Your task to perform on an android device: check android version Image 0: 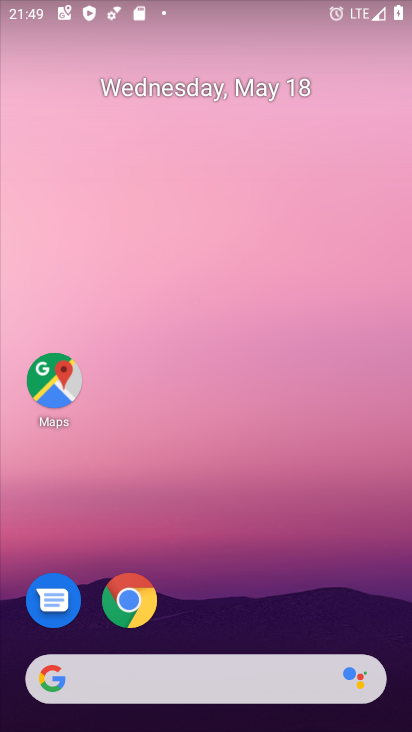
Step 0: drag from (186, 583) to (346, 23)
Your task to perform on an android device: check android version Image 1: 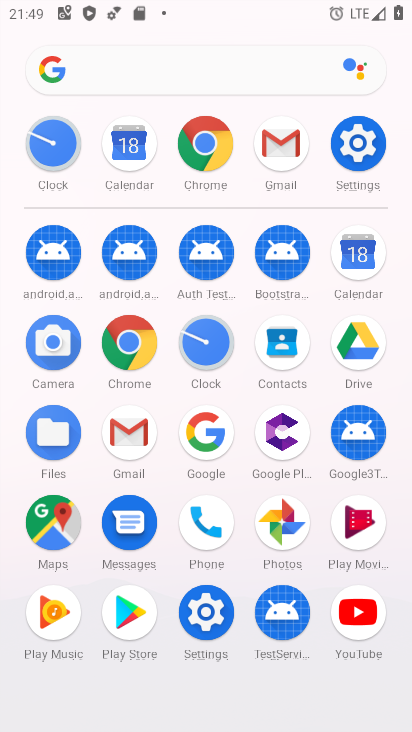
Step 1: click (366, 156)
Your task to perform on an android device: check android version Image 2: 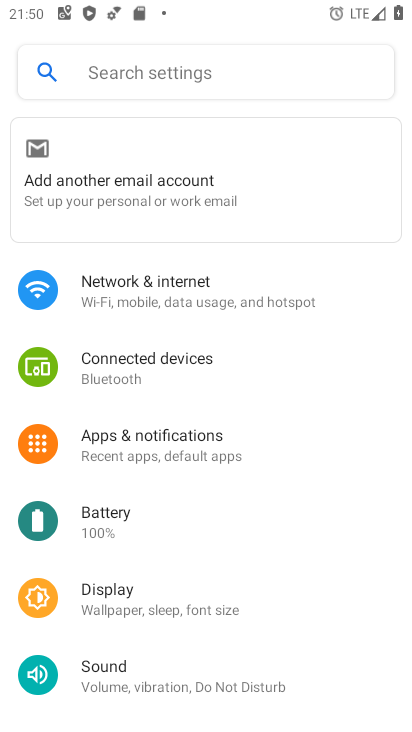
Step 2: drag from (175, 638) to (302, 104)
Your task to perform on an android device: check android version Image 3: 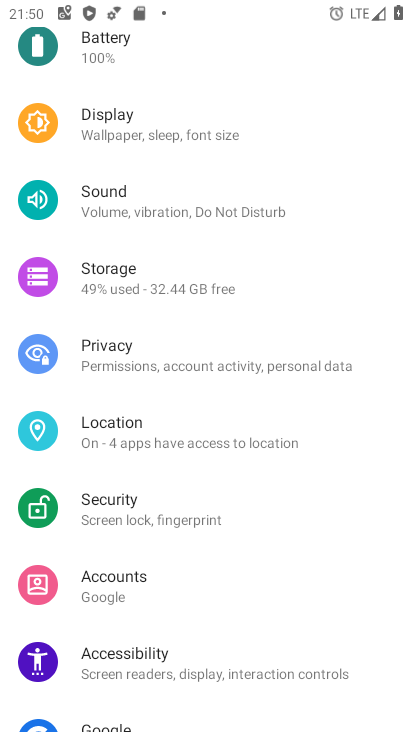
Step 3: drag from (201, 590) to (300, 51)
Your task to perform on an android device: check android version Image 4: 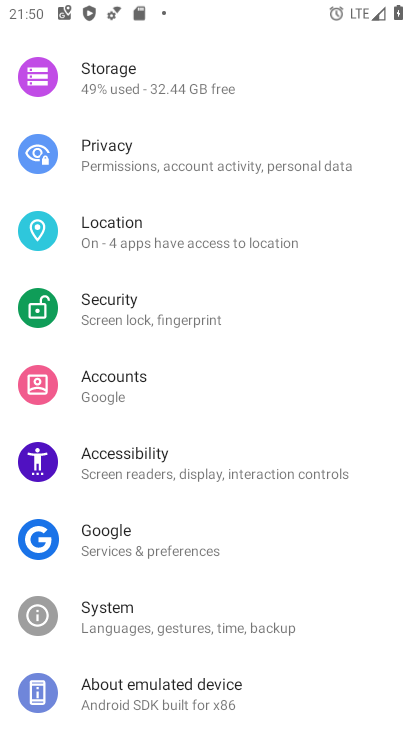
Step 4: click (150, 688)
Your task to perform on an android device: check android version Image 5: 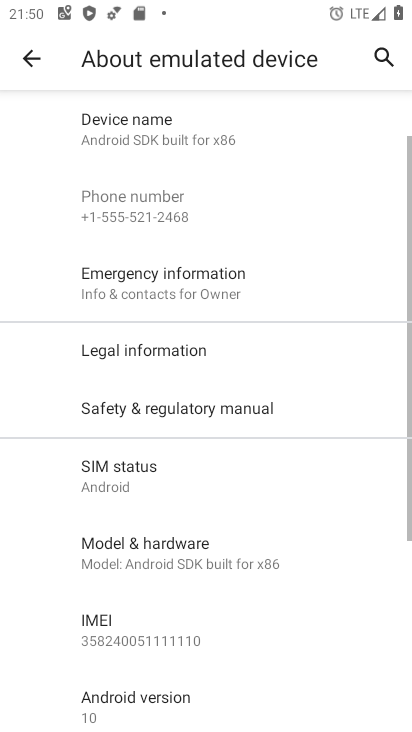
Step 5: click (140, 696)
Your task to perform on an android device: check android version Image 6: 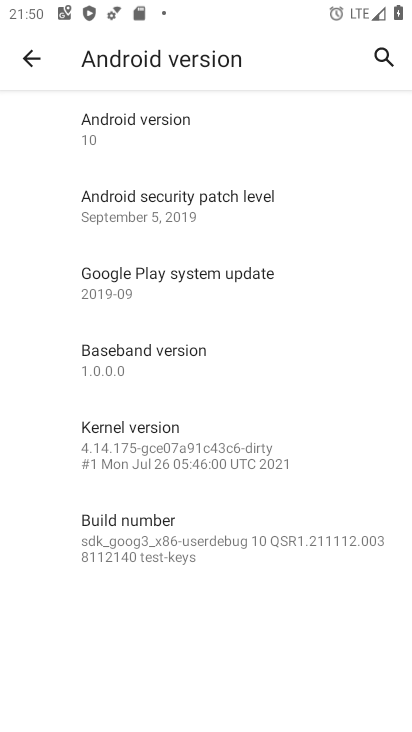
Step 6: click (125, 119)
Your task to perform on an android device: check android version Image 7: 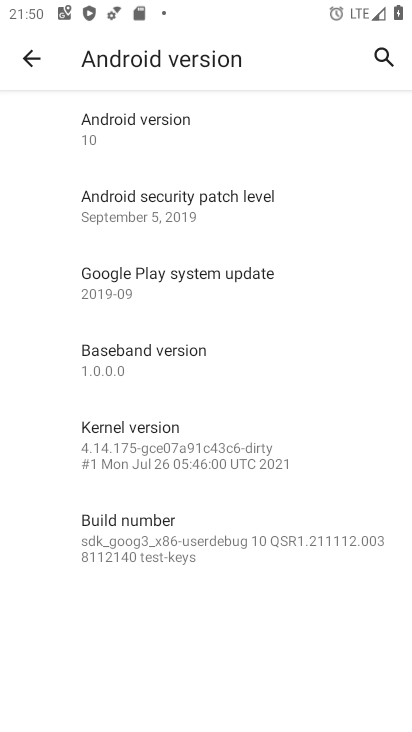
Step 7: task complete